Your task to perform on an android device: star an email in the gmail app Image 0: 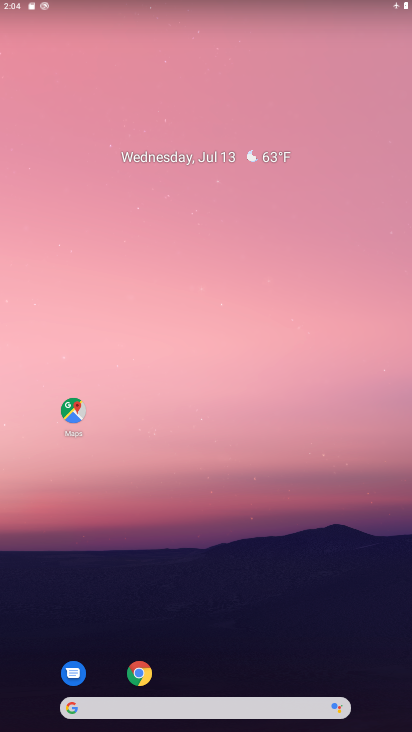
Step 0: drag from (148, 620) to (205, 149)
Your task to perform on an android device: star an email in the gmail app Image 1: 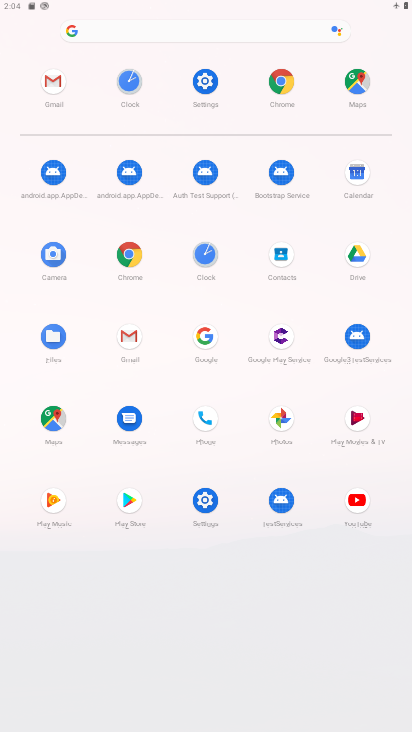
Step 1: click (126, 338)
Your task to perform on an android device: star an email in the gmail app Image 2: 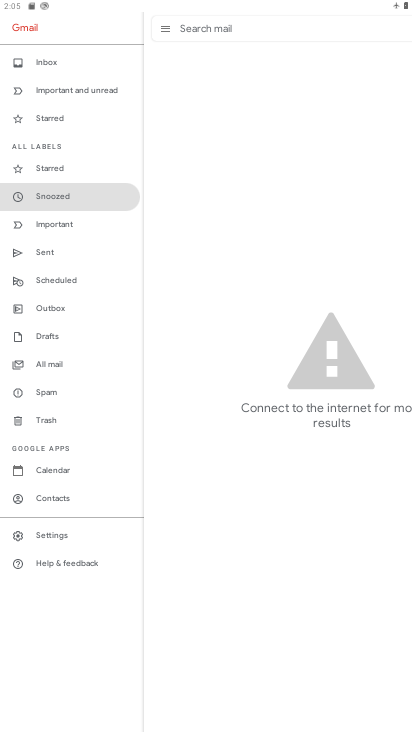
Step 2: click (48, 164)
Your task to perform on an android device: star an email in the gmail app Image 3: 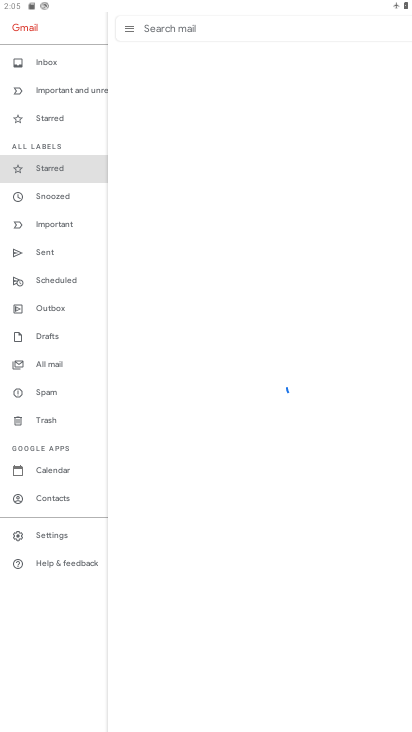
Step 3: task complete